Your task to perform on an android device: Search for "usb-c" on target.com, select the first entry, add it to the cart, then select checkout. Image 0: 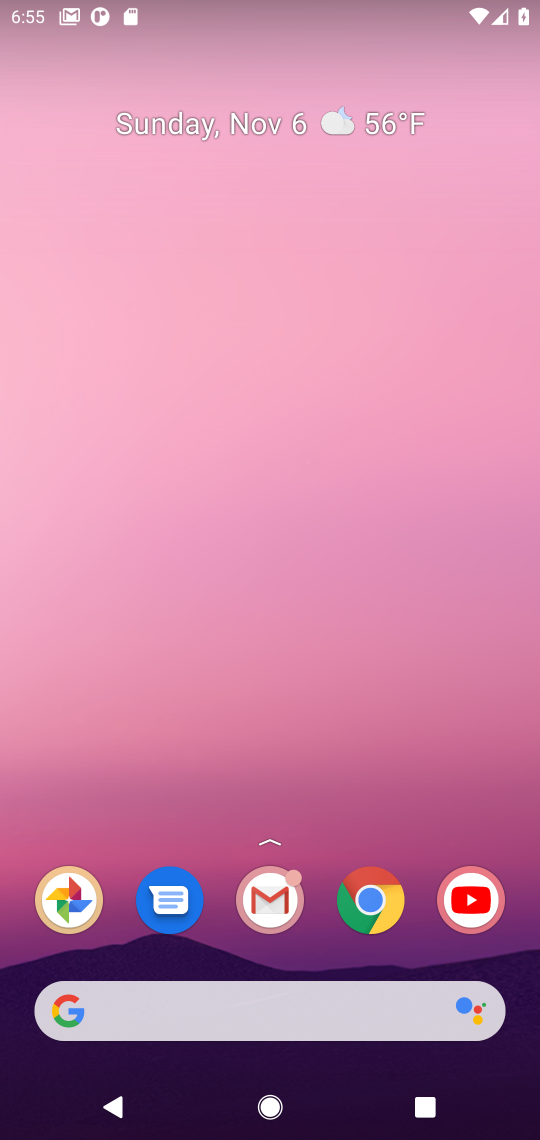
Step 0: drag from (328, 951) to (280, 91)
Your task to perform on an android device: Search for "usb-c" on target.com, select the first entry, add it to the cart, then select checkout. Image 1: 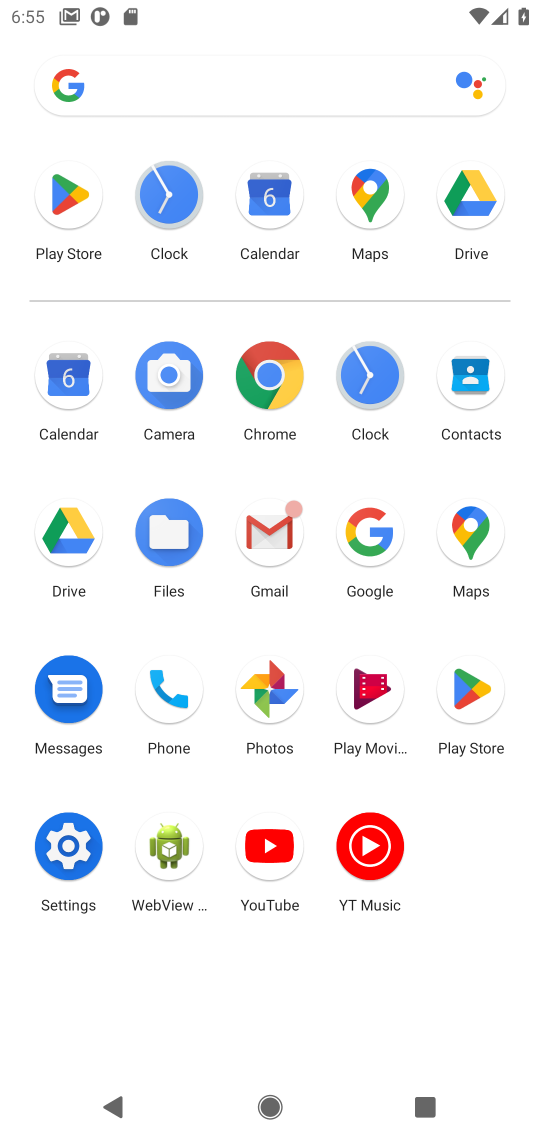
Step 1: click (270, 373)
Your task to perform on an android device: Search for "usb-c" on target.com, select the first entry, add it to the cart, then select checkout. Image 2: 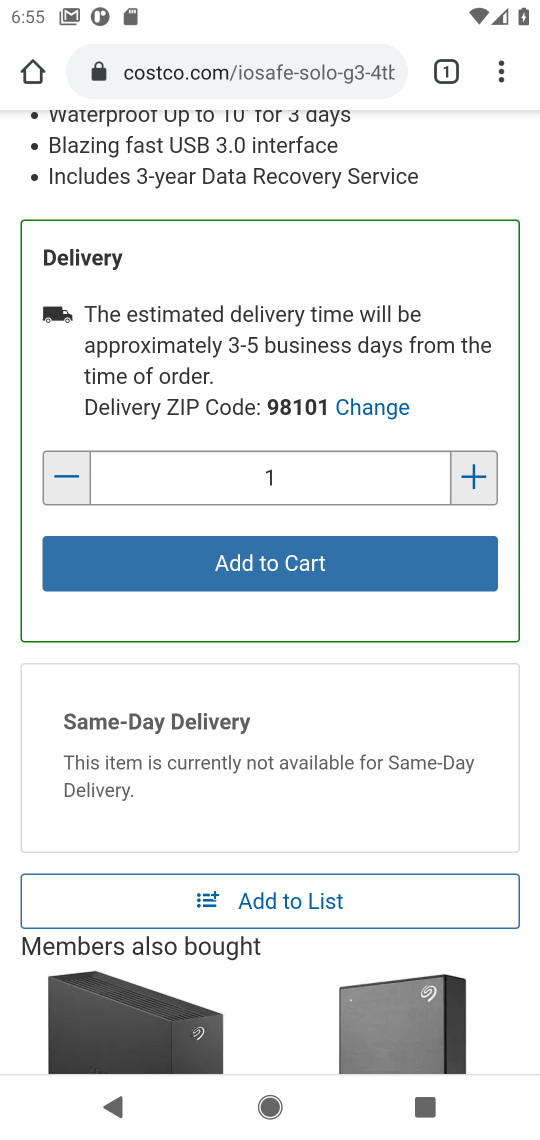
Step 2: click (220, 63)
Your task to perform on an android device: Search for "usb-c" on target.com, select the first entry, add it to the cart, then select checkout. Image 3: 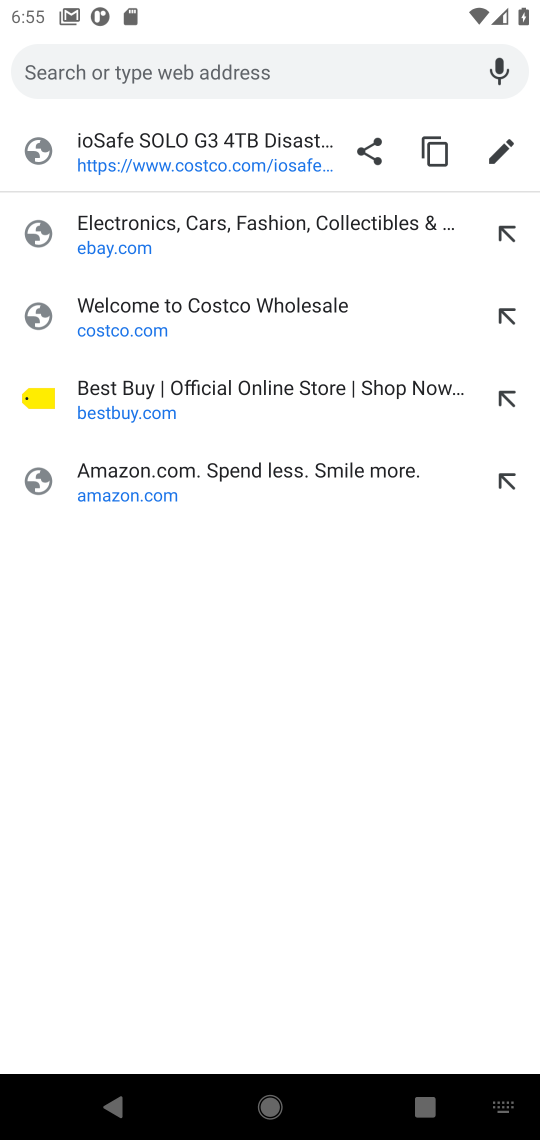
Step 3: type "target.com"
Your task to perform on an android device: Search for "usb-c" on target.com, select the first entry, add it to the cart, then select checkout. Image 4: 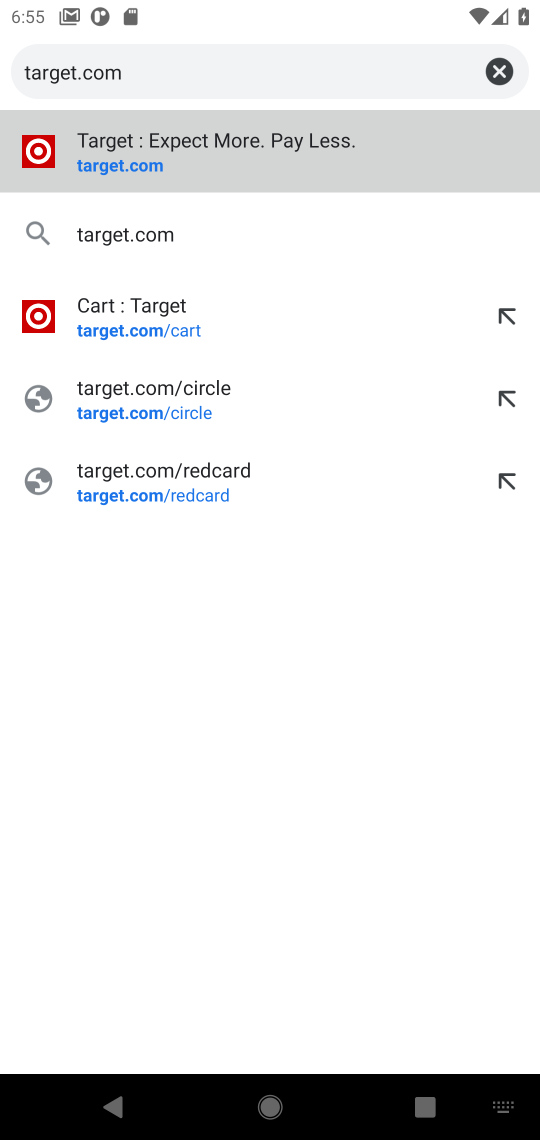
Step 4: press enter
Your task to perform on an android device: Search for "usb-c" on target.com, select the first entry, add it to the cart, then select checkout. Image 5: 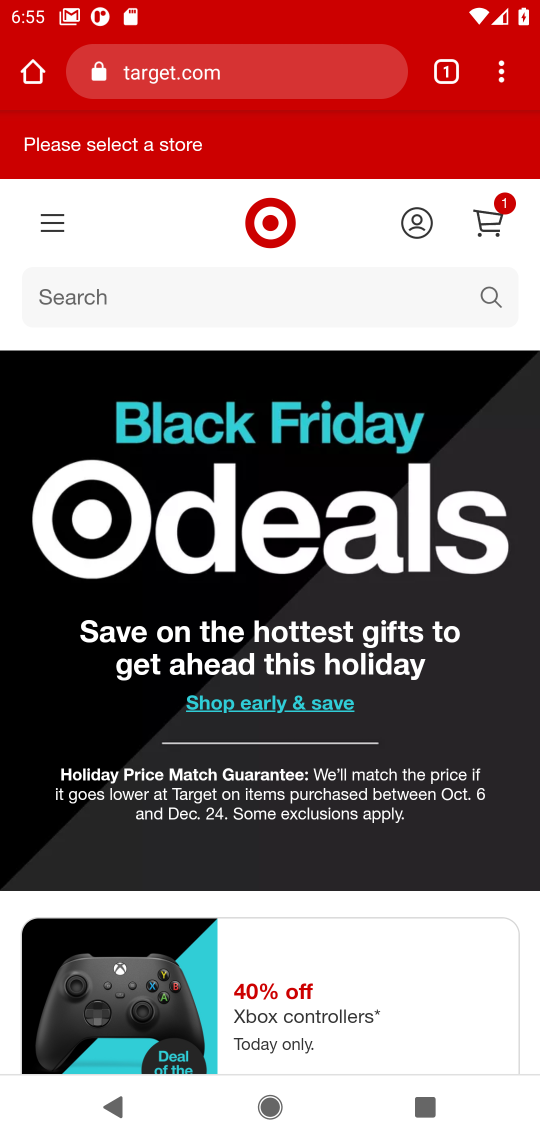
Step 5: click (269, 292)
Your task to perform on an android device: Search for "usb-c" on target.com, select the first entry, add it to the cart, then select checkout. Image 6: 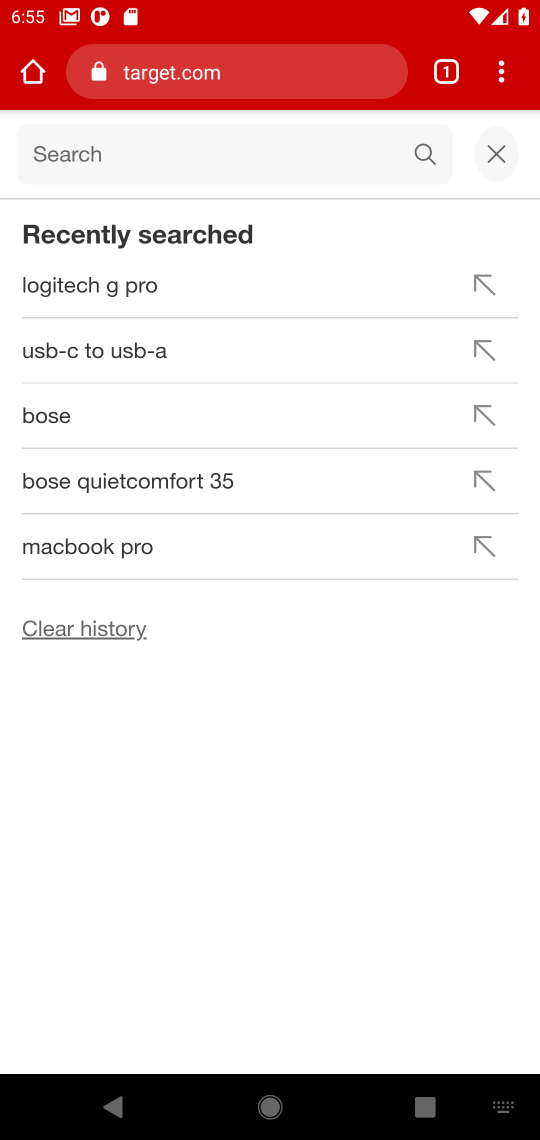
Step 6: type "usb-c"
Your task to perform on an android device: Search for "usb-c" on target.com, select the first entry, add it to the cart, then select checkout. Image 7: 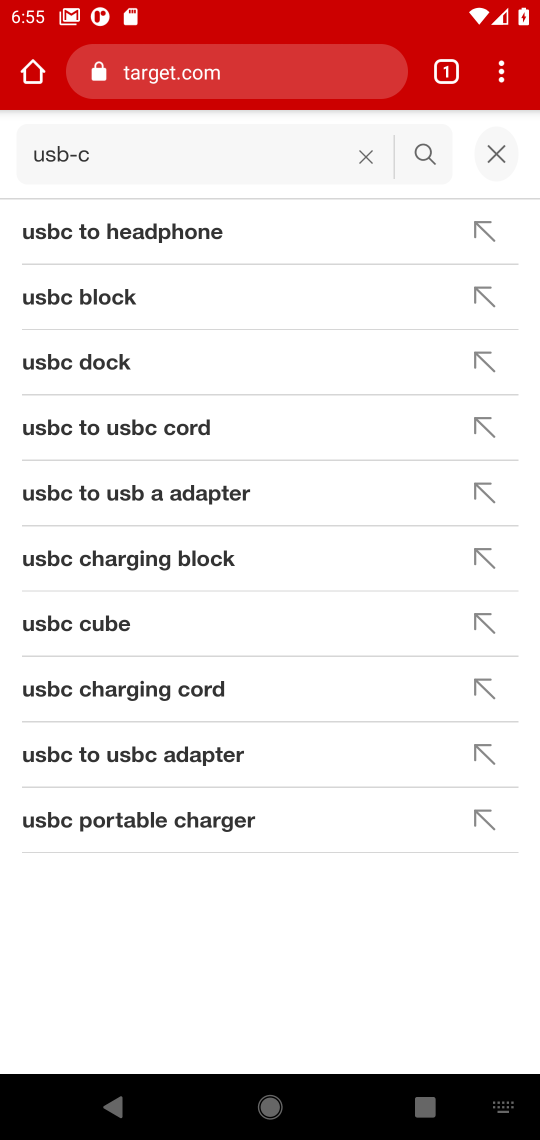
Step 7: press enter
Your task to perform on an android device: Search for "usb-c" on target.com, select the first entry, add it to the cart, then select checkout. Image 8: 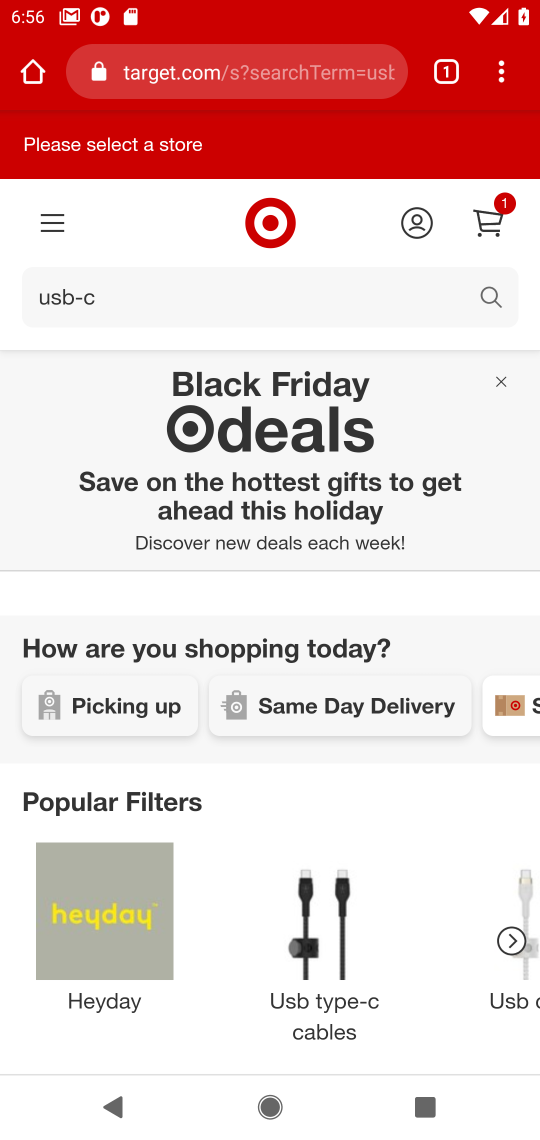
Step 8: drag from (131, 1030) to (231, 357)
Your task to perform on an android device: Search for "usb-c" on target.com, select the first entry, add it to the cart, then select checkout. Image 9: 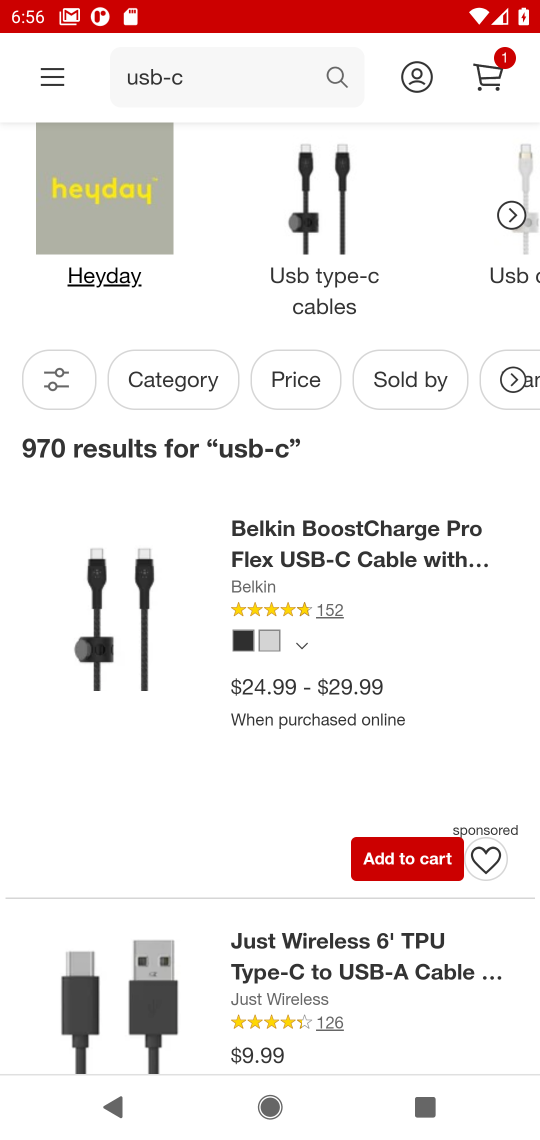
Step 9: click (406, 853)
Your task to perform on an android device: Search for "usb-c" on target.com, select the first entry, add it to the cart, then select checkout. Image 10: 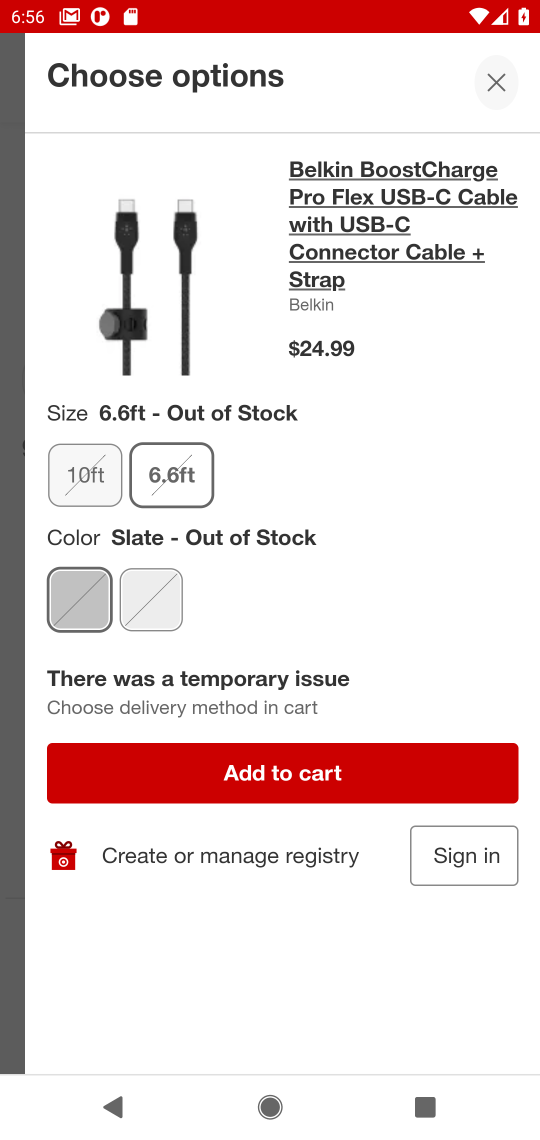
Step 10: click (401, 755)
Your task to perform on an android device: Search for "usb-c" on target.com, select the first entry, add it to the cart, then select checkout. Image 11: 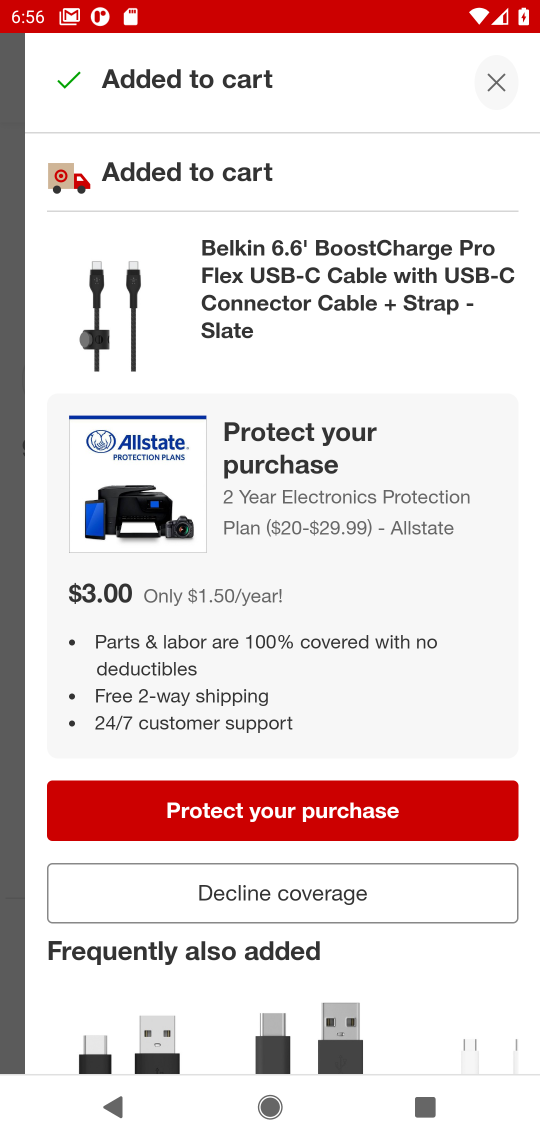
Step 11: click (501, 77)
Your task to perform on an android device: Search for "usb-c" on target.com, select the first entry, add it to the cart, then select checkout. Image 12: 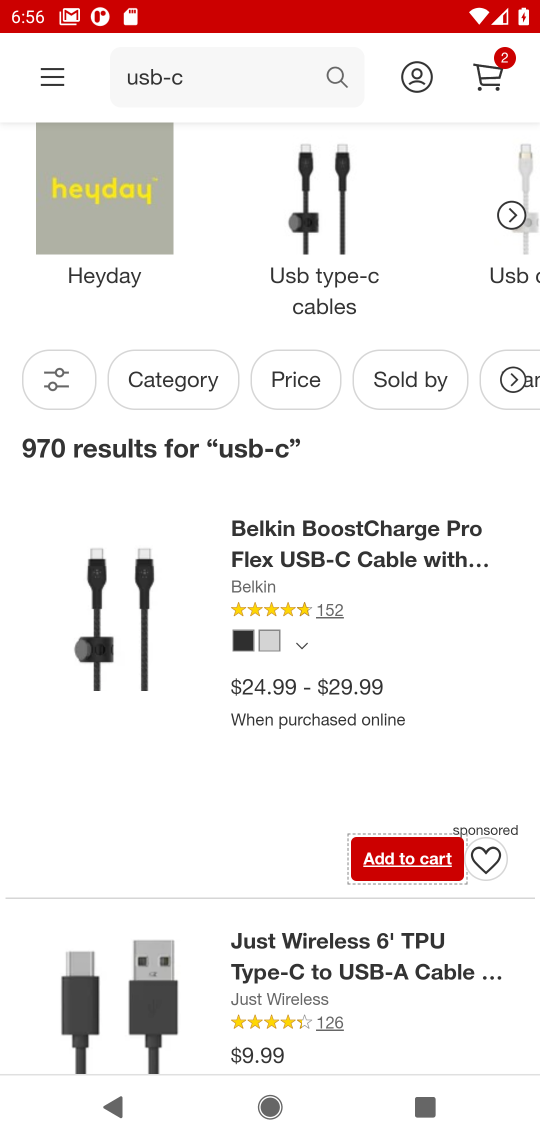
Step 12: click (493, 60)
Your task to perform on an android device: Search for "usb-c" on target.com, select the first entry, add it to the cart, then select checkout. Image 13: 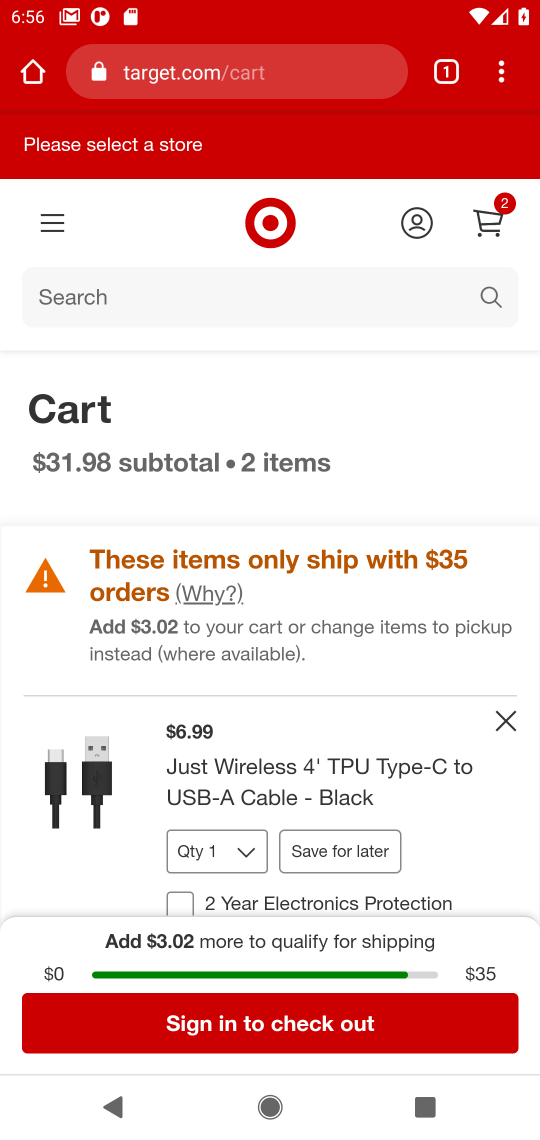
Step 13: click (362, 1034)
Your task to perform on an android device: Search for "usb-c" on target.com, select the first entry, add it to the cart, then select checkout. Image 14: 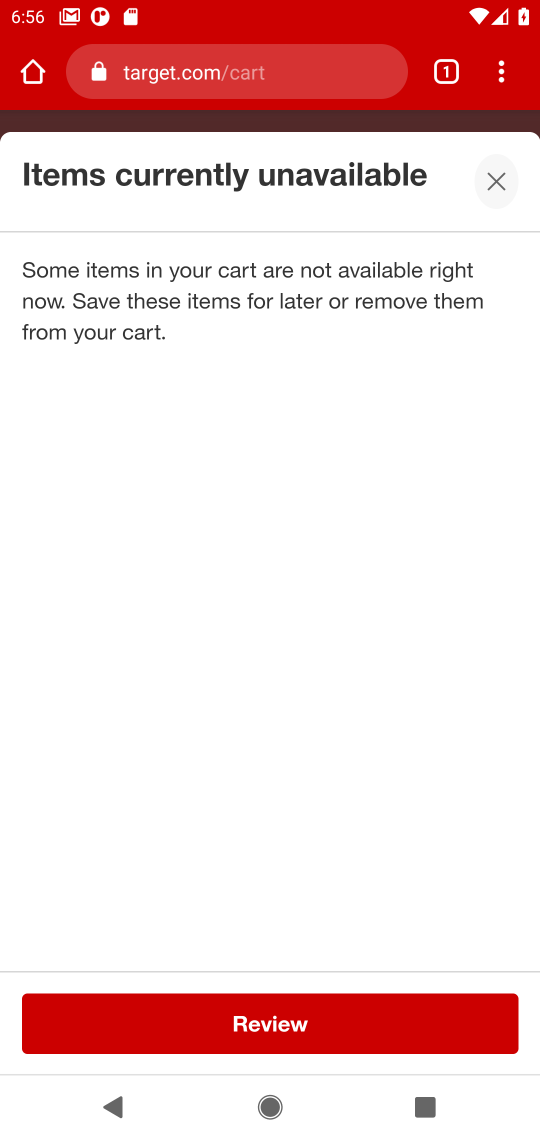
Step 14: task complete